Your task to perform on an android device: toggle translation in the chrome app Image 0: 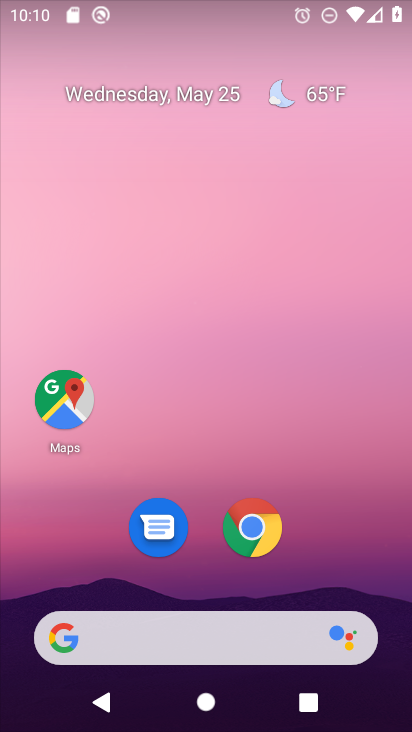
Step 0: click (251, 527)
Your task to perform on an android device: toggle translation in the chrome app Image 1: 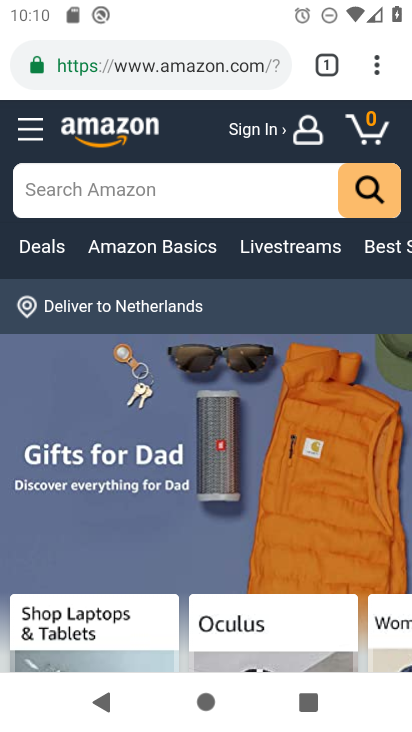
Step 1: click (378, 64)
Your task to perform on an android device: toggle translation in the chrome app Image 2: 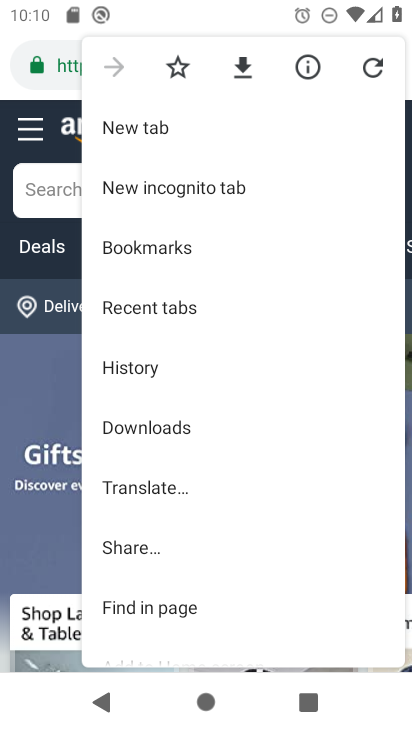
Step 2: drag from (171, 519) to (212, 439)
Your task to perform on an android device: toggle translation in the chrome app Image 3: 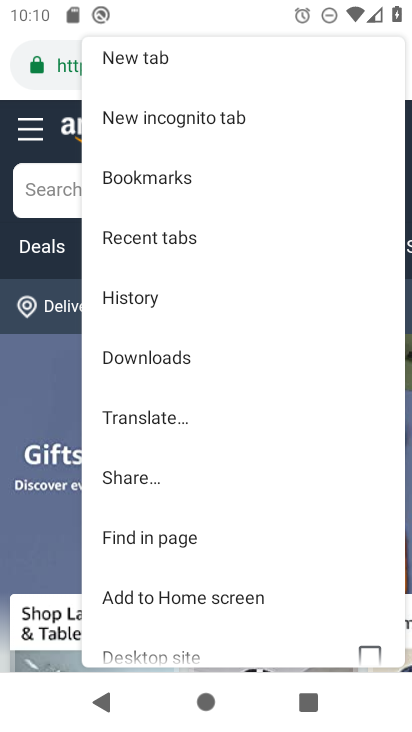
Step 3: drag from (137, 554) to (190, 468)
Your task to perform on an android device: toggle translation in the chrome app Image 4: 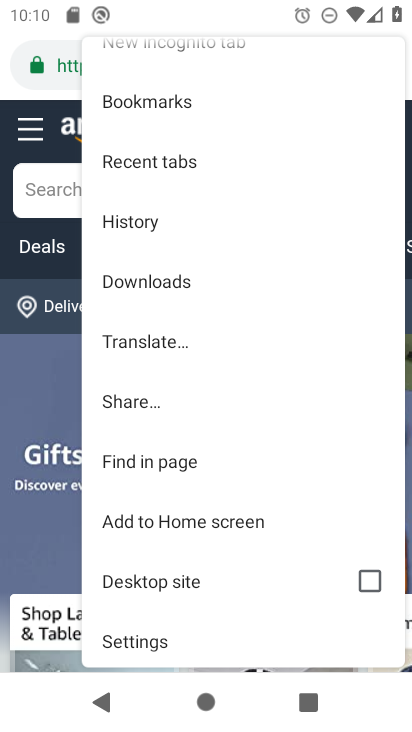
Step 4: drag from (154, 532) to (206, 446)
Your task to perform on an android device: toggle translation in the chrome app Image 5: 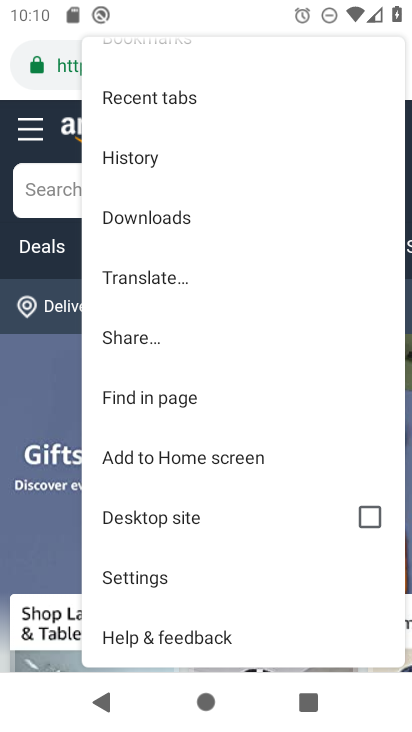
Step 5: click (132, 575)
Your task to perform on an android device: toggle translation in the chrome app Image 6: 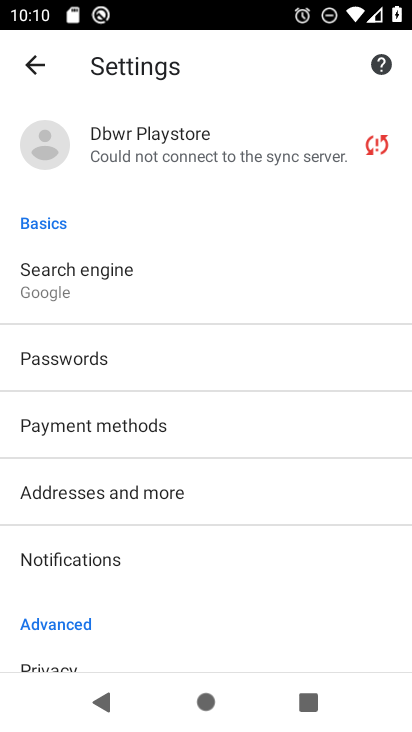
Step 6: drag from (87, 597) to (171, 482)
Your task to perform on an android device: toggle translation in the chrome app Image 7: 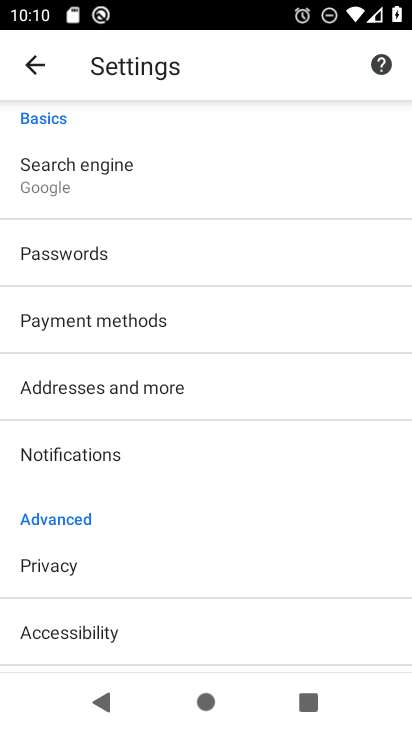
Step 7: drag from (44, 597) to (133, 473)
Your task to perform on an android device: toggle translation in the chrome app Image 8: 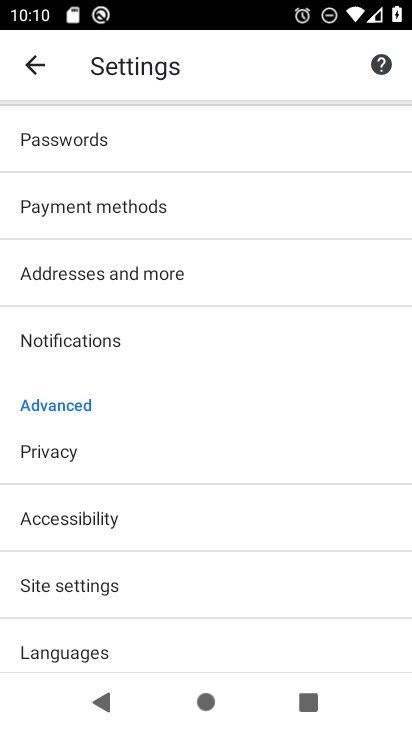
Step 8: drag from (66, 637) to (136, 543)
Your task to perform on an android device: toggle translation in the chrome app Image 9: 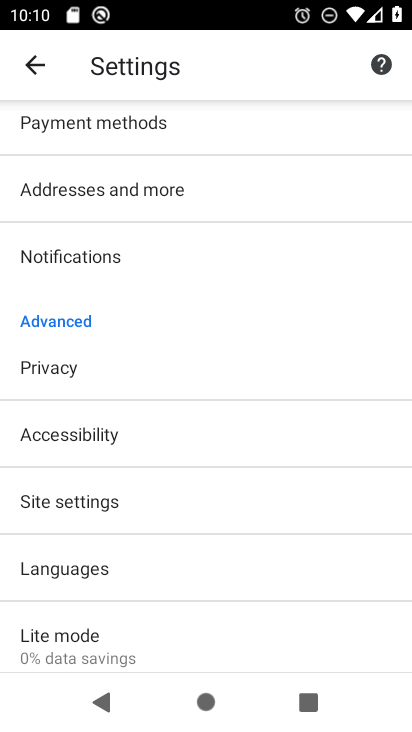
Step 9: click (89, 576)
Your task to perform on an android device: toggle translation in the chrome app Image 10: 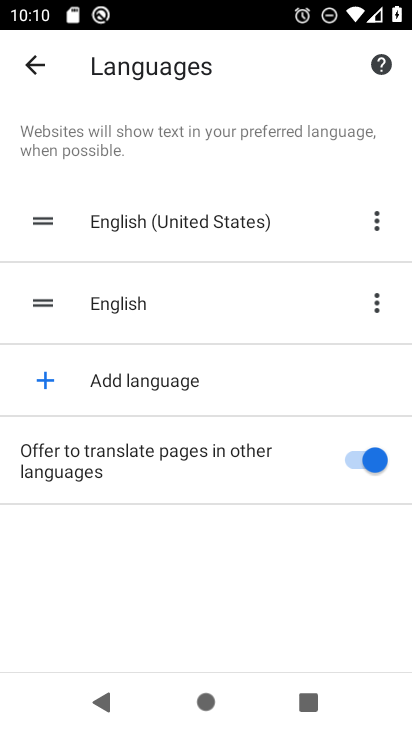
Step 10: click (354, 461)
Your task to perform on an android device: toggle translation in the chrome app Image 11: 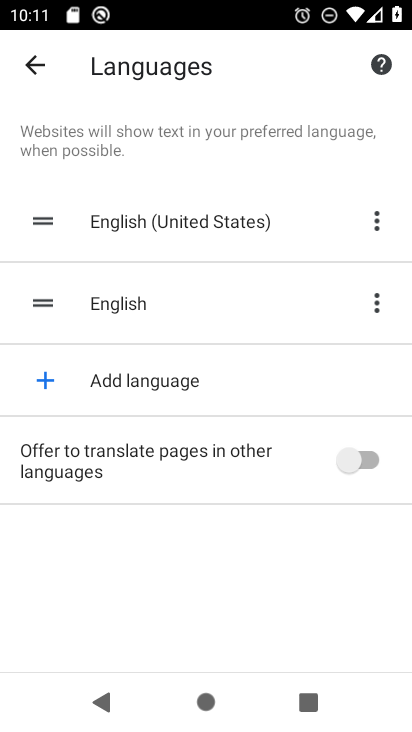
Step 11: task complete